Your task to perform on an android device: visit the assistant section in the google photos Image 0: 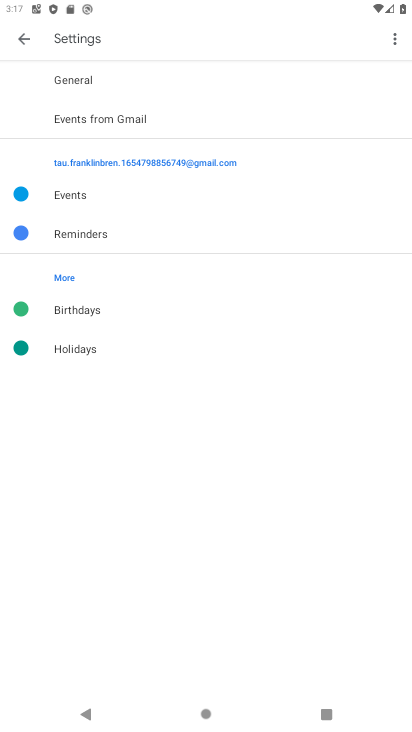
Step 0: press home button
Your task to perform on an android device: visit the assistant section in the google photos Image 1: 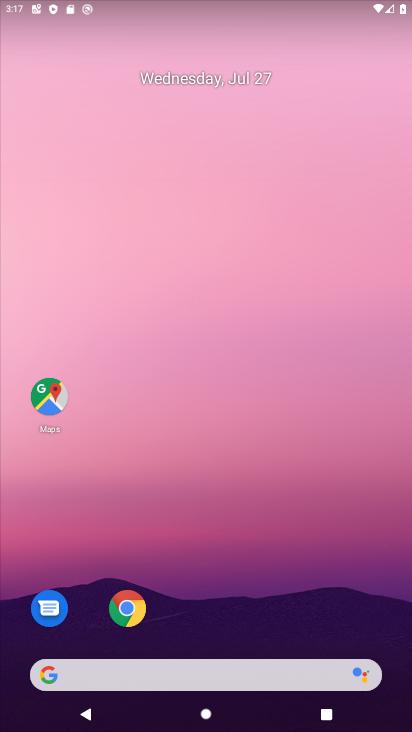
Step 1: drag from (395, 721) to (286, 117)
Your task to perform on an android device: visit the assistant section in the google photos Image 2: 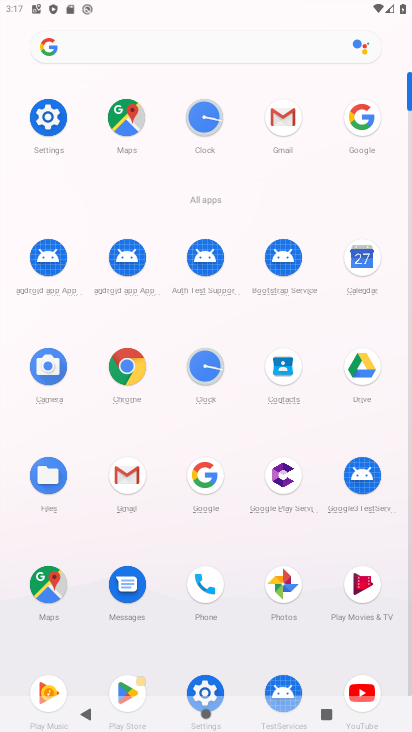
Step 2: click (280, 594)
Your task to perform on an android device: visit the assistant section in the google photos Image 3: 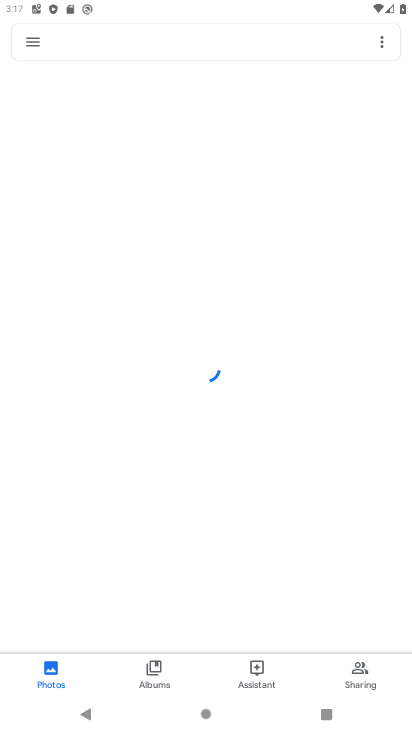
Step 3: click (251, 675)
Your task to perform on an android device: visit the assistant section in the google photos Image 4: 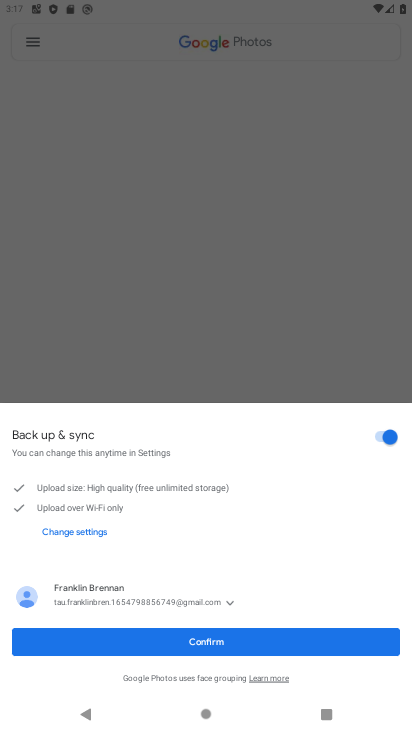
Step 4: click (236, 639)
Your task to perform on an android device: visit the assistant section in the google photos Image 5: 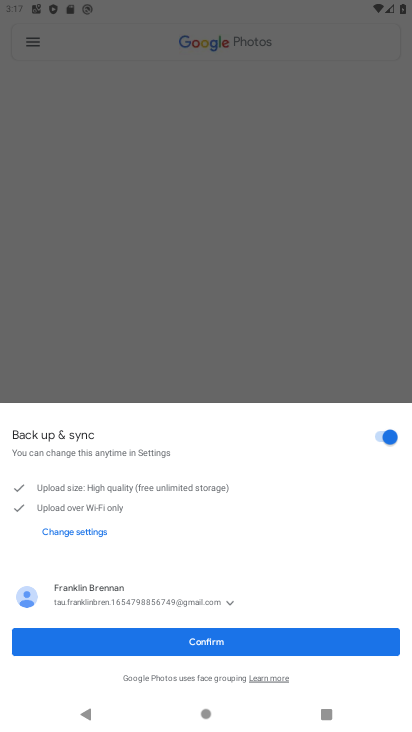
Step 5: click (236, 639)
Your task to perform on an android device: visit the assistant section in the google photos Image 6: 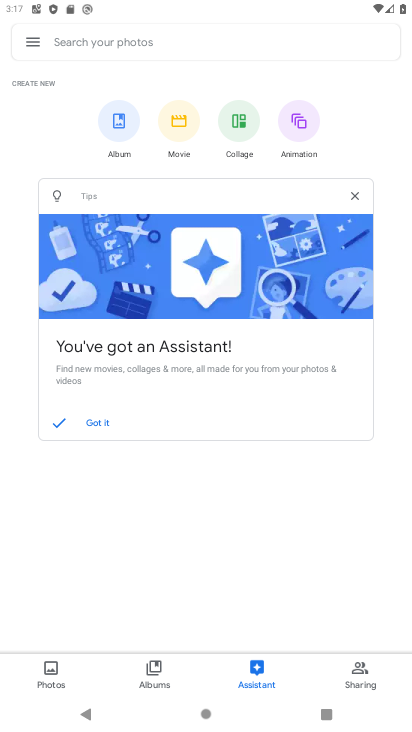
Step 6: task complete